Your task to perform on an android device: change timer sound Image 0: 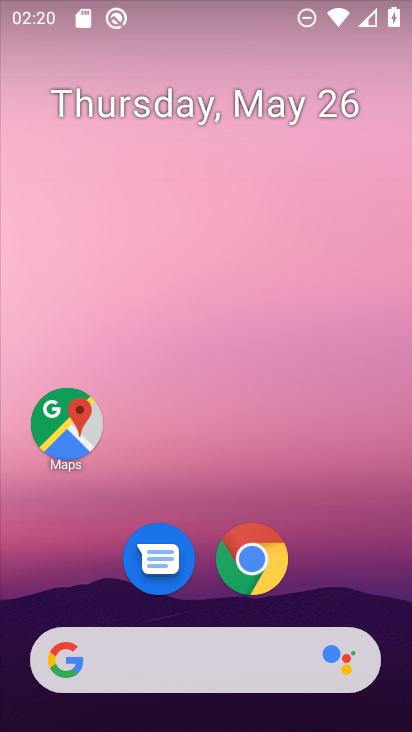
Step 0: drag from (219, 652) to (385, 103)
Your task to perform on an android device: change timer sound Image 1: 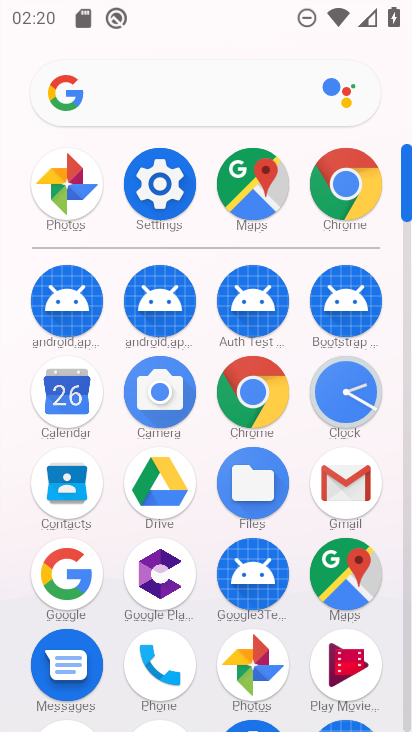
Step 1: click (348, 418)
Your task to perform on an android device: change timer sound Image 2: 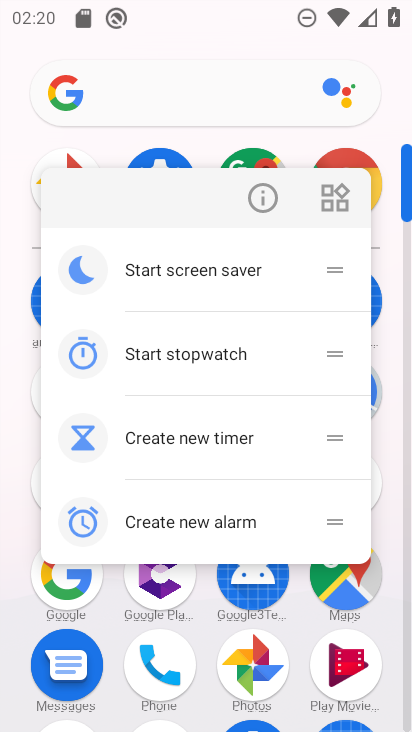
Step 2: drag from (281, 676) to (310, 494)
Your task to perform on an android device: change timer sound Image 3: 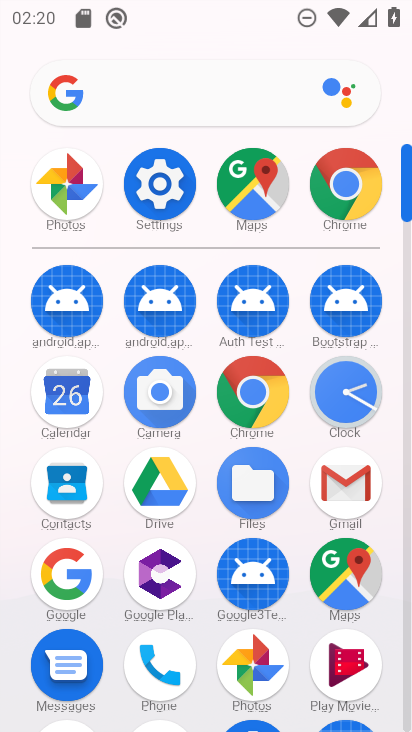
Step 3: click (339, 400)
Your task to perform on an android device: change timer sound Image 4: 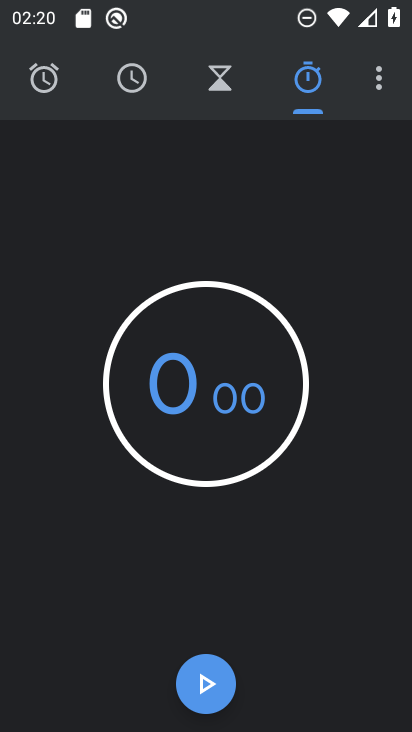
Step 4: click (378, 94)
Your task to perform on an android device: change timer sound Image 5: 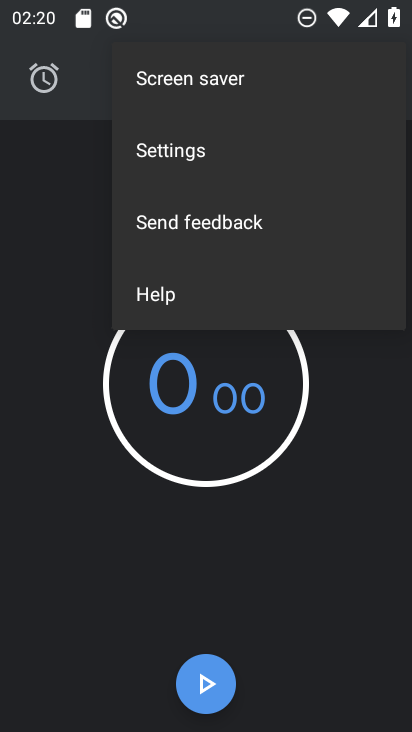
Step 5: click (181, 150)
Your task to perform on an android device: change timer sound Image 6: 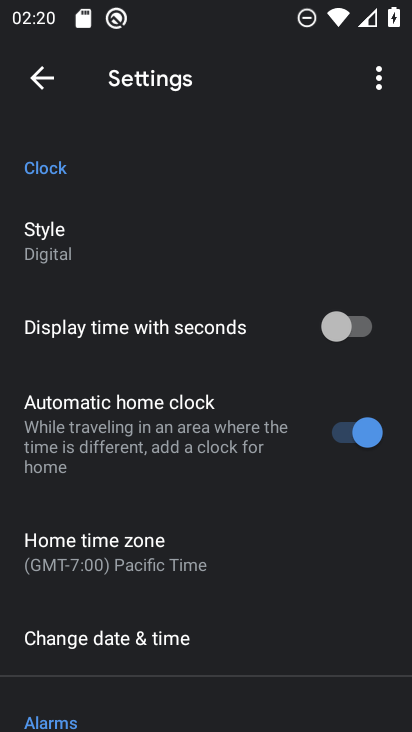
Step 6: drag from (221, 498) to (322, 183)
Your task to perform on an android device: change timer sound Image 7: 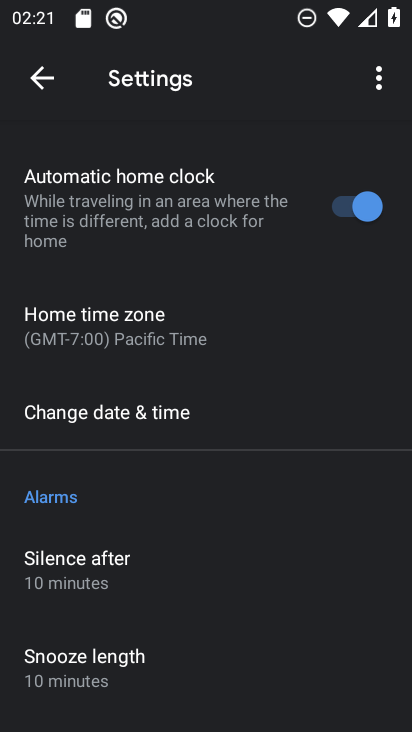
Step 7: drag from (270, 557) to (300, 261)
Your task to perform on an android device: change timer sound Image 8: 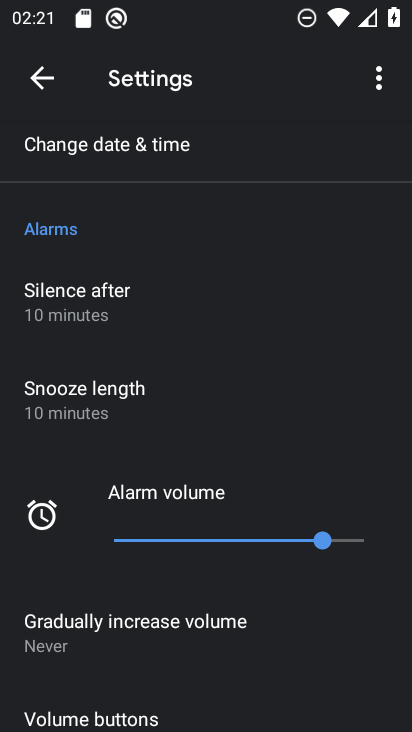
Step 8: drag from (271, 565) to (337, 126)
Your task to perform on an android device: change timer sound Image 9: 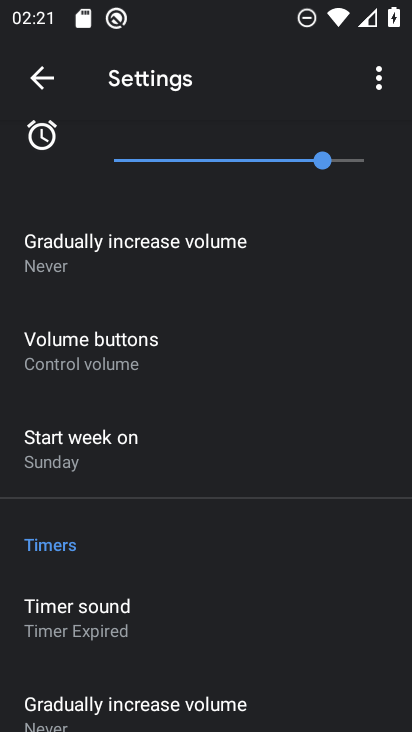
Step 9: click (115, 633)
Your task to perform on an android device: change timer sound Image 10: 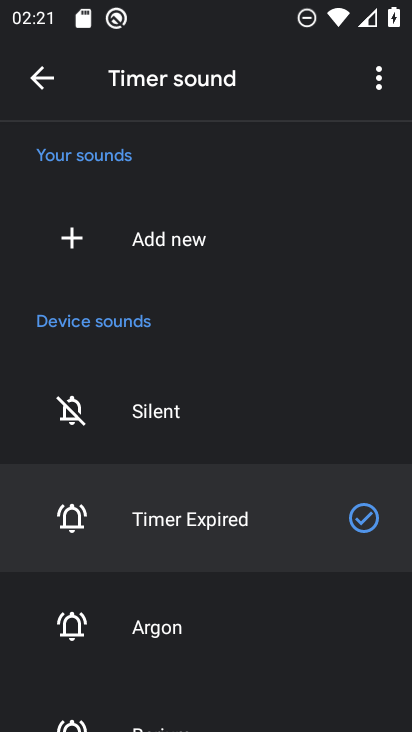
Step 10: click (150, 628)
Your task to perform on an android device: change timer sound Image 11: 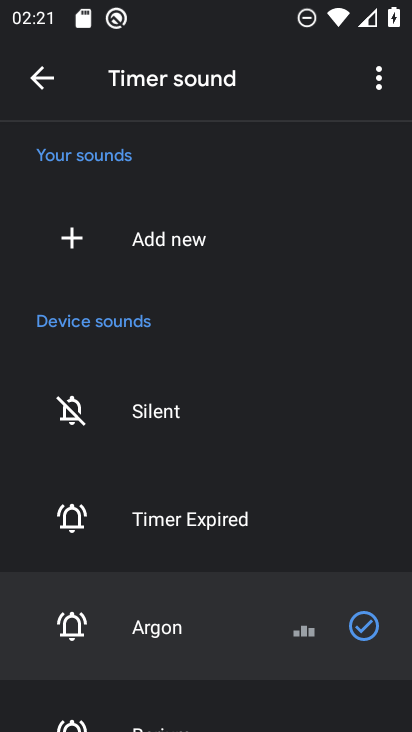
Step 11: task complete